Your task to perform on an android device: open chrome and create a bookmark for the current page Image 0: 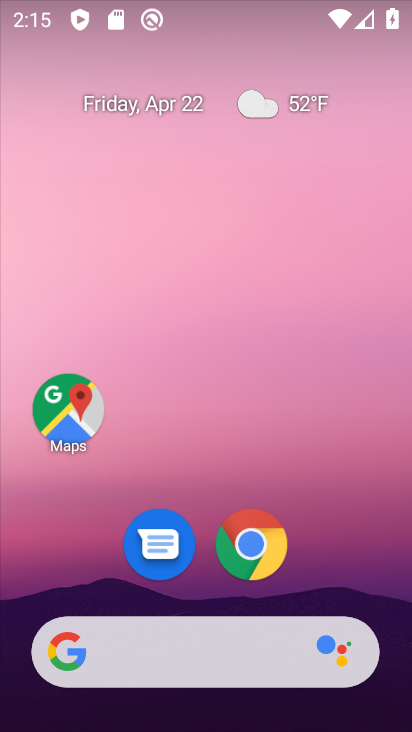
Step 0: click (260, 541)
Your task to perform on an android device: open chrome and create a bookmark for the current page Image 1: 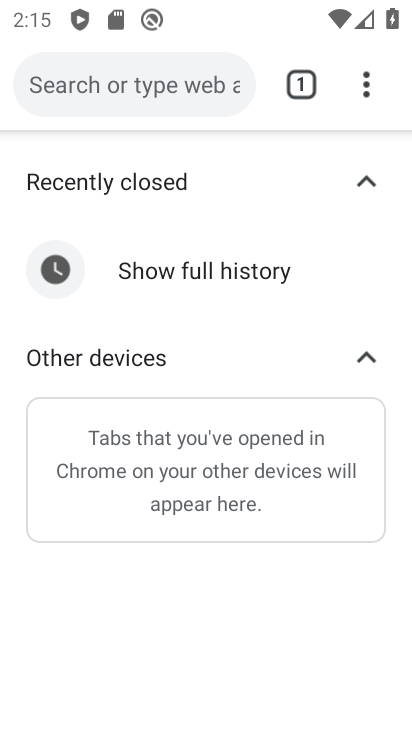
Step 1: click (181, 92)
Your task to perform on an android device: open chrome and create a bookmark for the current page Image 2: 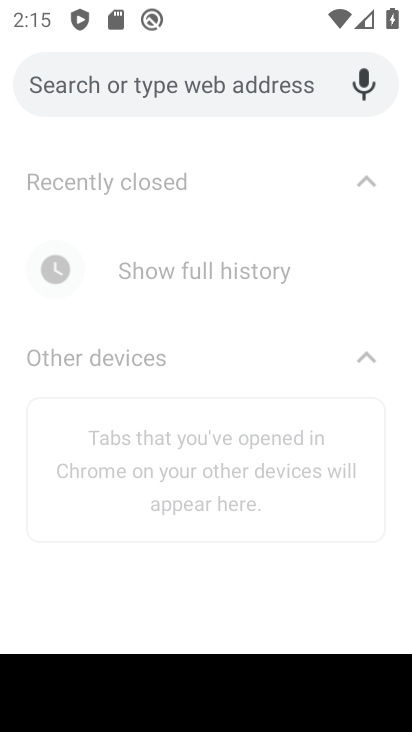
Step 2: type "ham"
Your task to perform on an android device: open chrome and create a bookmark for the current page Image 3: 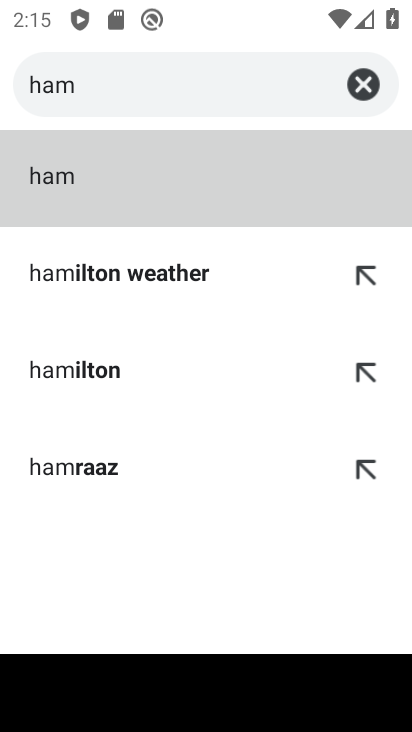
Step 3: click (158, 183)
Your task to perform on an android device: open chrome and create a bookmark for the current page Image 4: 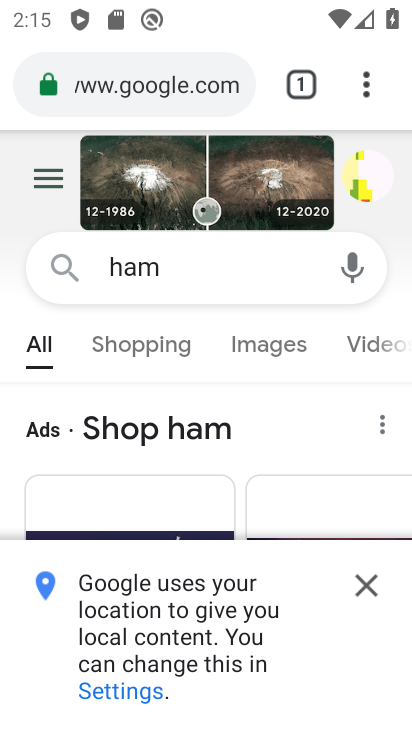
Step 4: drag from (204, 421) to (247, 61)
Your task to perform on an android device: open chrome and create a bookmark for the current page Image 5: 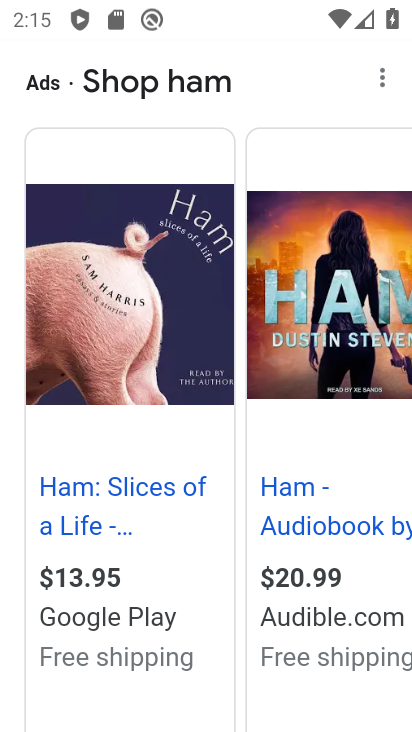
Step 5: click (112, 495)
Your task to perform on an android device: open chrome and create a bookmark for the current page Image 6: 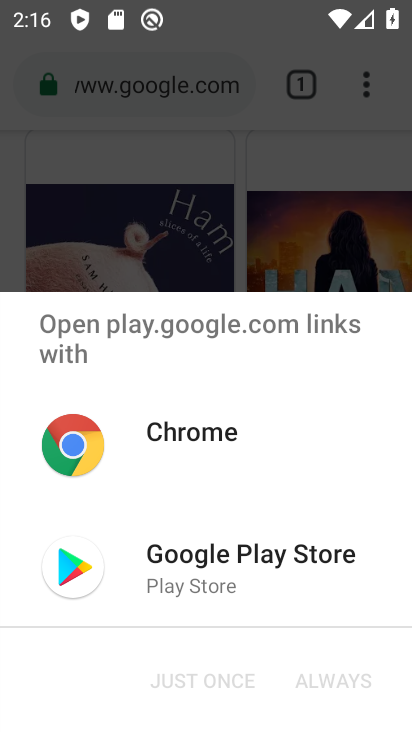
Step 6: click (212, 164)
Your task to perform on an android device: open chrome and create a bookmark for the current page Image 7: 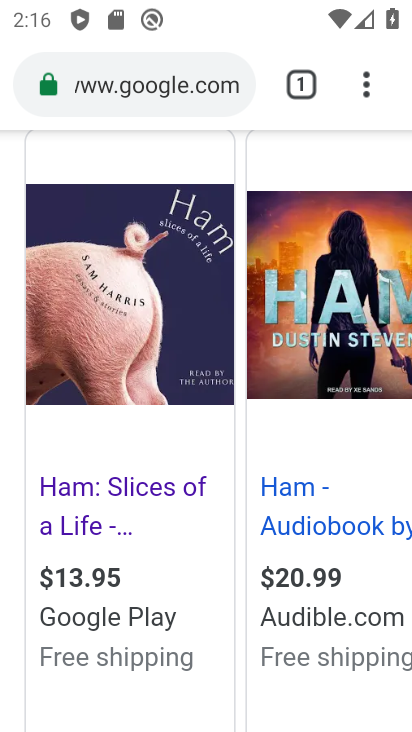
Step 7: click (363, 83)
Your task to perform on an android device: open chrome and create a bookmark for the current page Image 8: 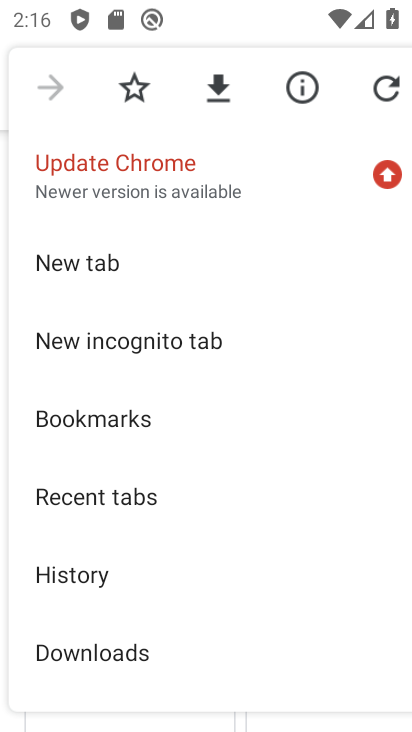
Step 8: click (126, 95)
Your task to perform on an android device: open chrome and create a bookmark for the current page Image 9: 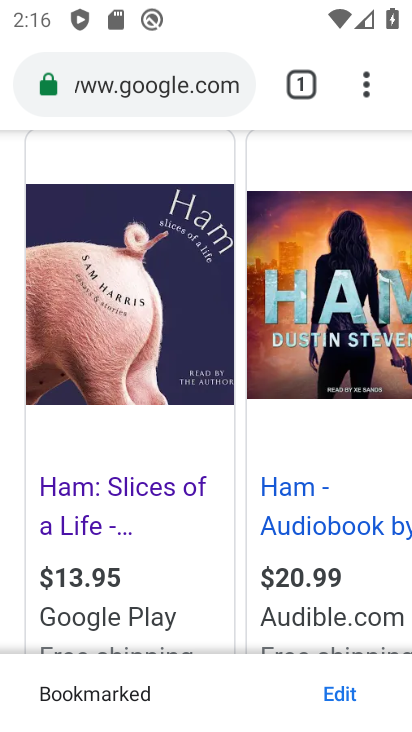
Step 9: task complete